Your task to perform on an android device: Search for Mexican restaurants on Maps Image 0: 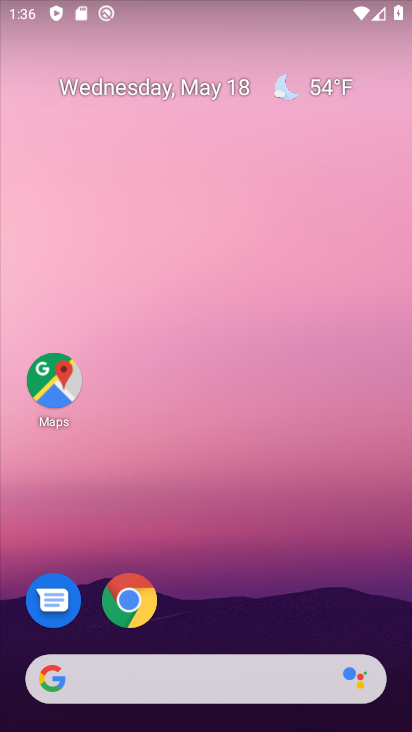
Step 0: click (60, 388)
Your task to perform on an android device: Search for Mexican restaurants on Maps Image 1: 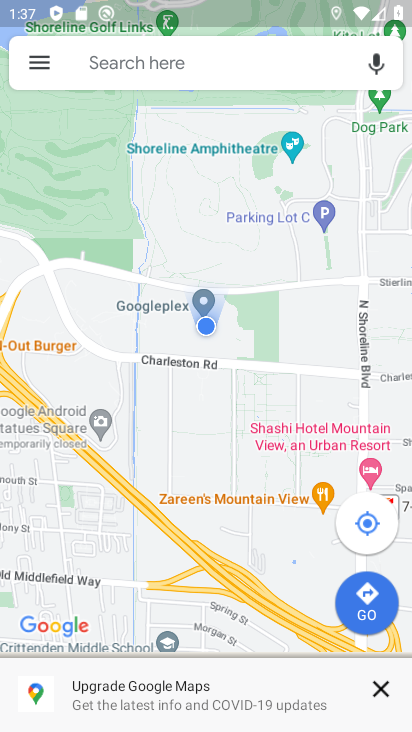
Step 1: click (166, 53)
Your task to perform on an android device: Search for Mexican restaurants on Maps Image 2: 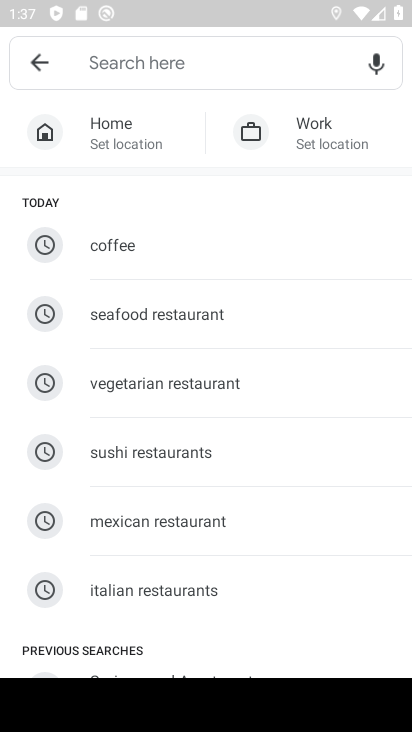
Step 2: click (188, 521)
Your task to perform on an android device: Search for Mexican restaurants on Maps Image 3: 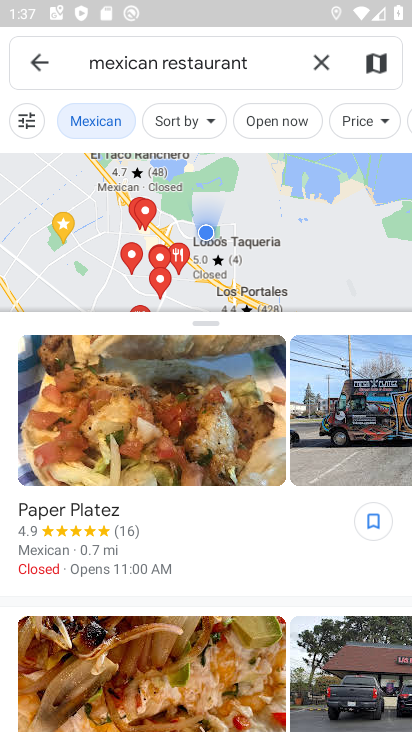
Step 3: task complete